Your task to perform on an android device: Open calendar and show me the fourth week of next month Image 0: 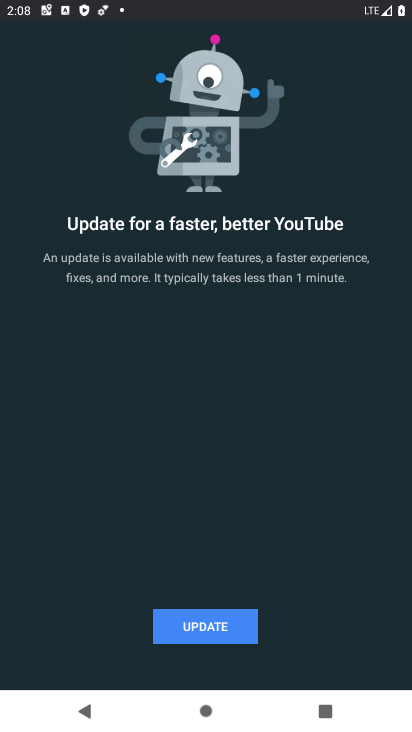
Step 0: press home button
Your task to perform on an android device: Open calendar and show me the fourth week of next month Image 1: 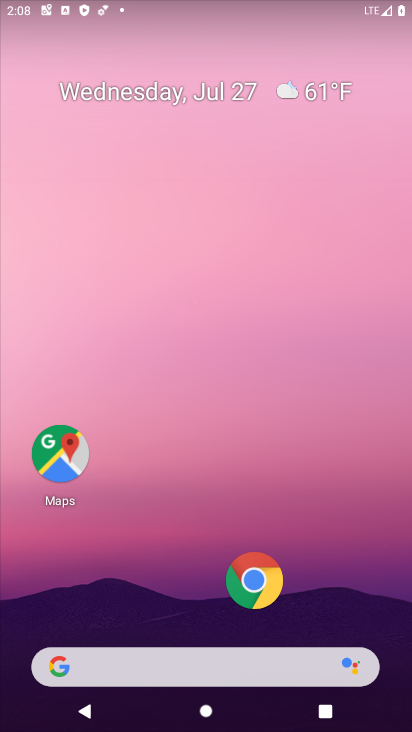
Step 1: drag from (196, 601) to (201, 198)
Your task to perform on an android device: Open calendar and show me the fourth week of next month Image 2: 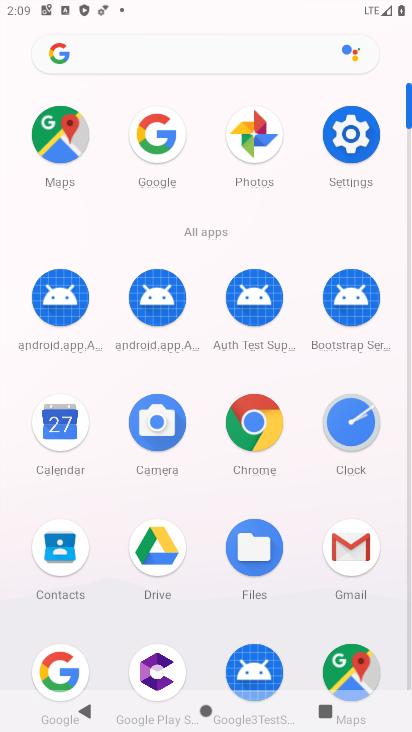
Step 2: click (75, 450)
Your task to perform on an android device: Open calendar and show me the fourth week of next month Image 3: 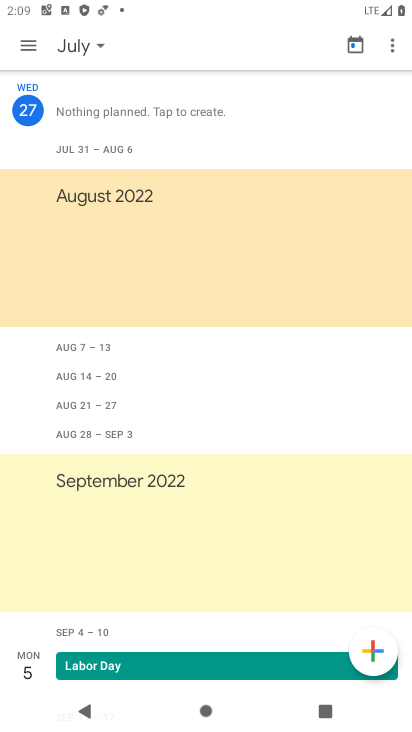
Step 3: click (105, 47)
Your task to perform on an android device: Open calendar and show me the fourth week of next month Image 4: 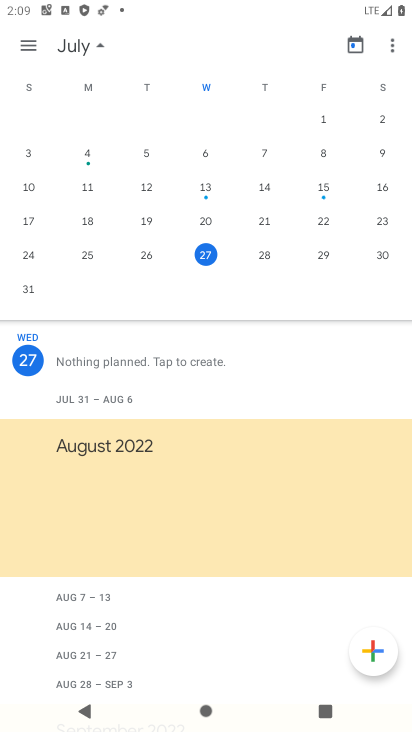
Step 4: drag from (331, 195) to (32, 202)
Your task to perform on an android device: Open calendar and show me the fourth week of next month Image 5: 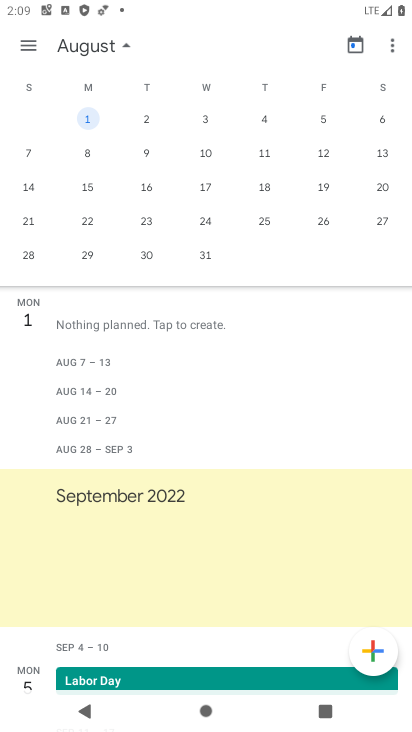
Step 5: click (31, 215)
Your task to perform on an android device: Open calendar and show me the fourth week of next month Image 6: 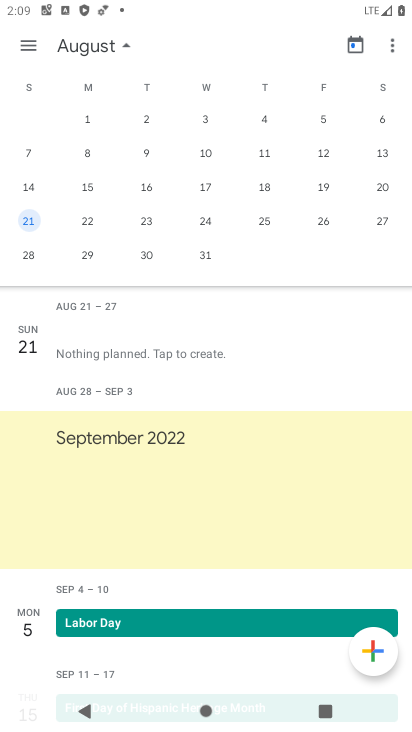
Step 6: task complete